Your task to perform on an android device: Open calendar and show me the third week of next month Image 0: 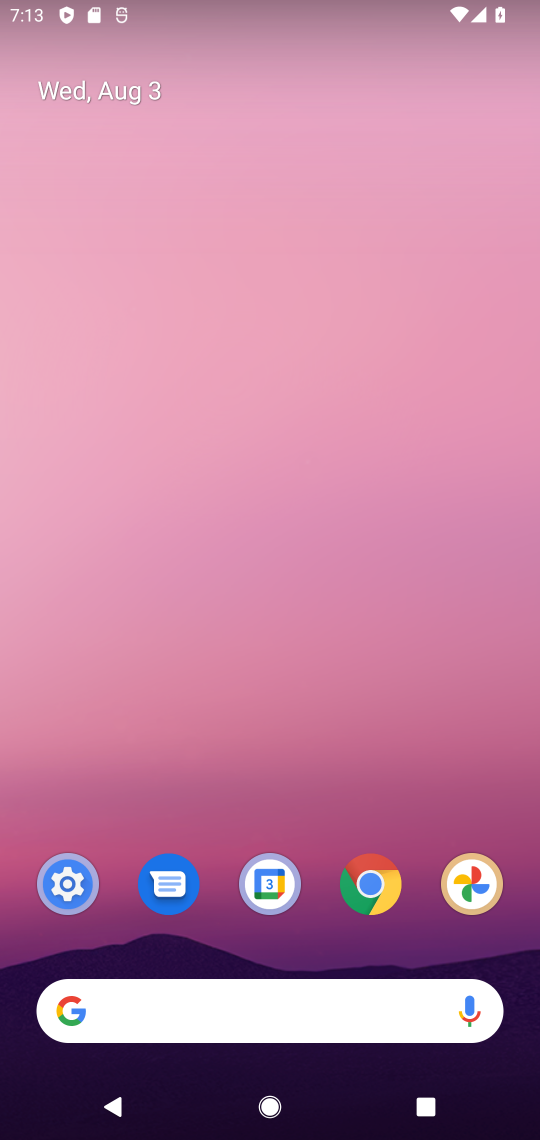
Step 0: drag from (300, 660) to (366, 239)
Your task to perform on an android device: Open calendar and show me the third week of next month Image 1: 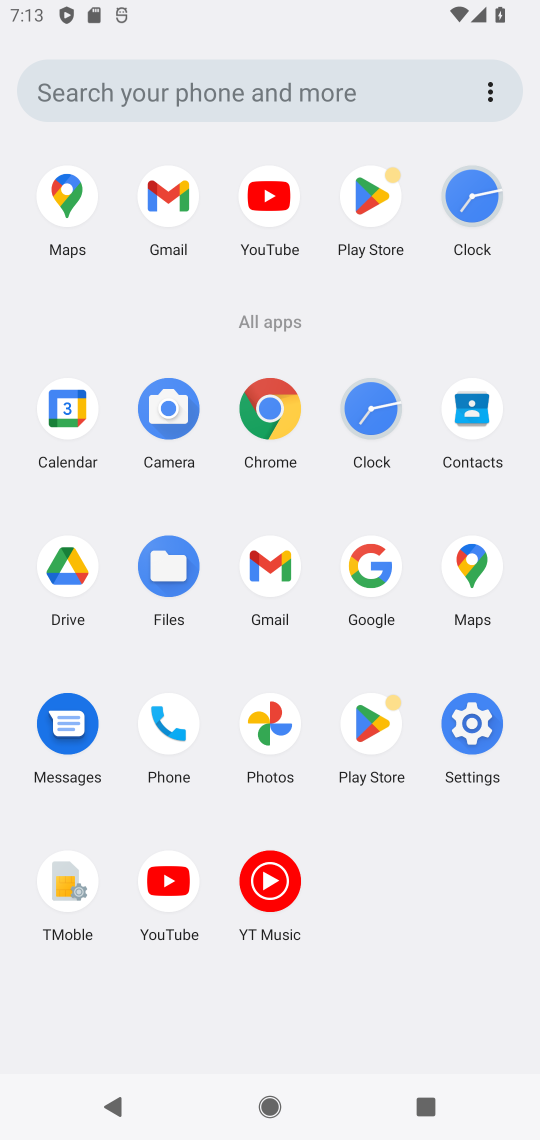
Step 1: click (69, 416)
Your task to perform on an android device: Open calendar and show me the third week of next month Image 2: 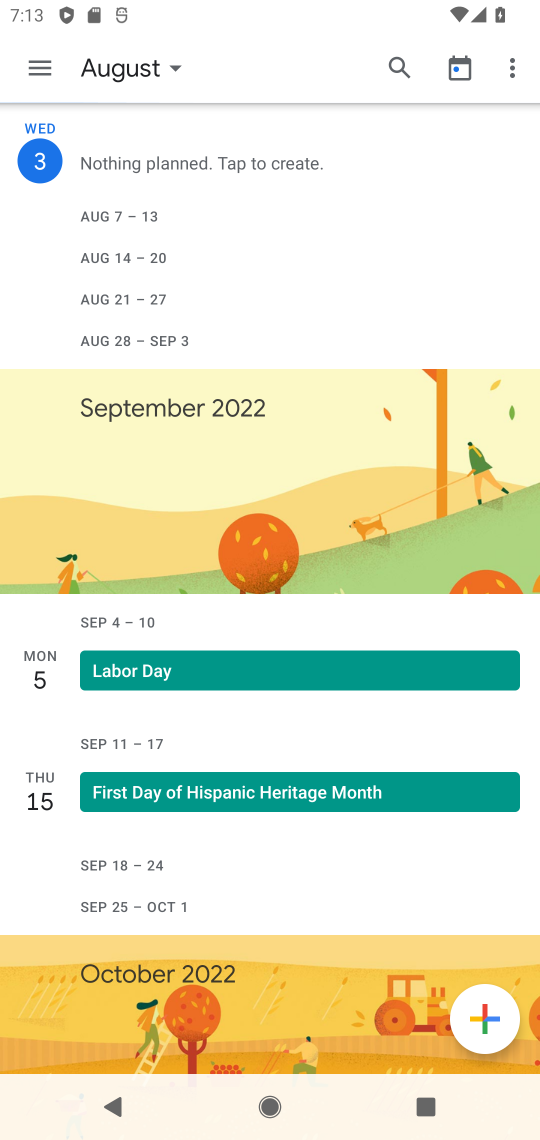
Step 2: task complete